Your task to perform on an android device: open chrome and create a bookmark for the current page Image 0: 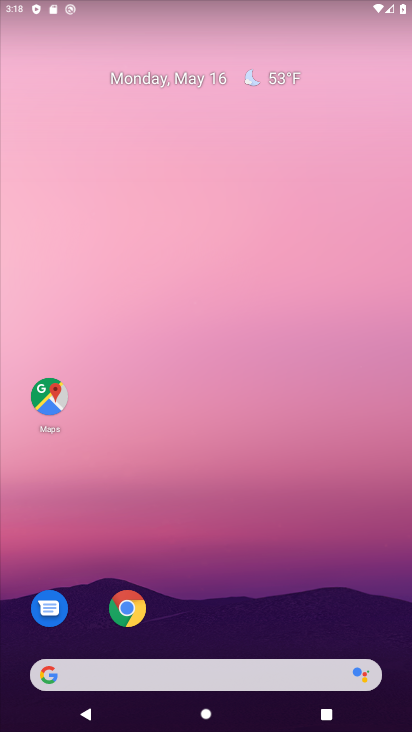
Step 0: click (129, 607)
Your task to perform on an android device: open chrome and create a bookmark for the current page Image 1: 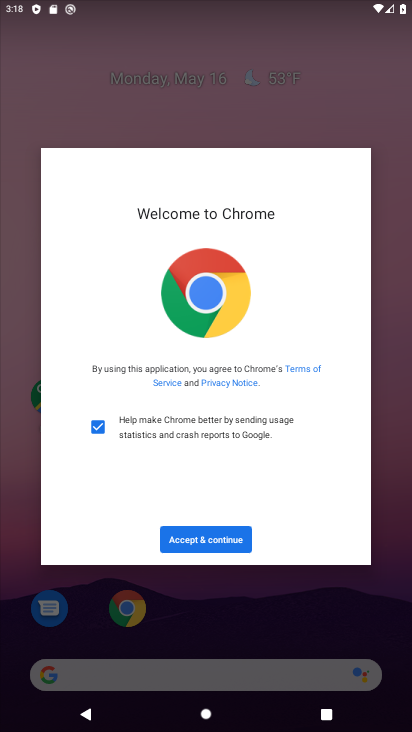
Step 1: click (198, 534)
Your task to perform on an android device: open chrome and create a bookmark for the current page Image 2: 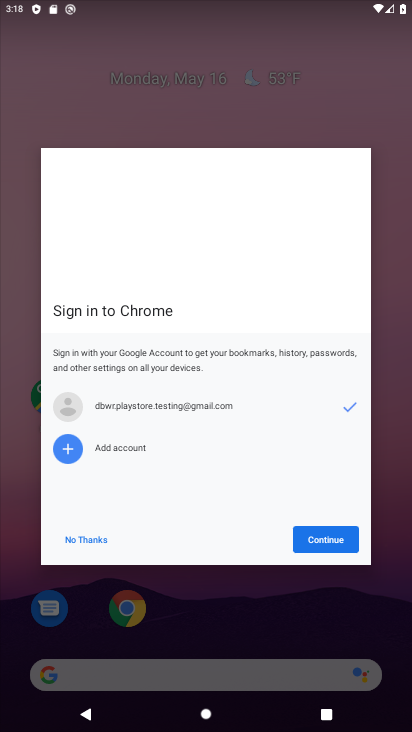
Step 2: click (322, 539)
Your task to perform on an android device: open chrome and create a bookmark for the current page Image 3: 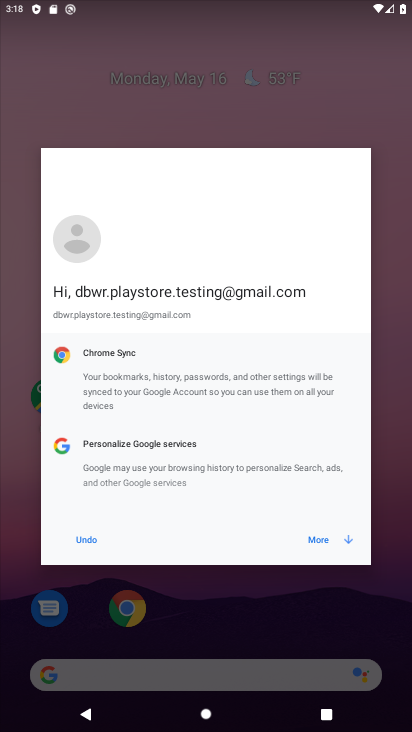
Step 3: click (322, 539)
Your task to perform on an android device: open chrome and create a bookmark for the current page Image 4: 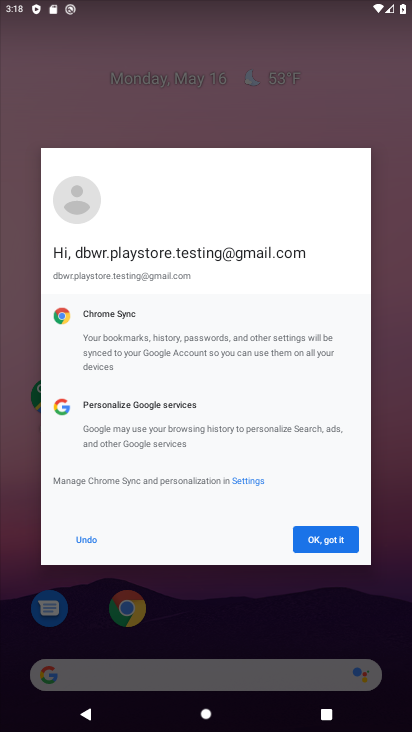
Step 4: click (322, 539)
Your task to perform on an android device: open chrome and create a bookmark for the current page Image 5: 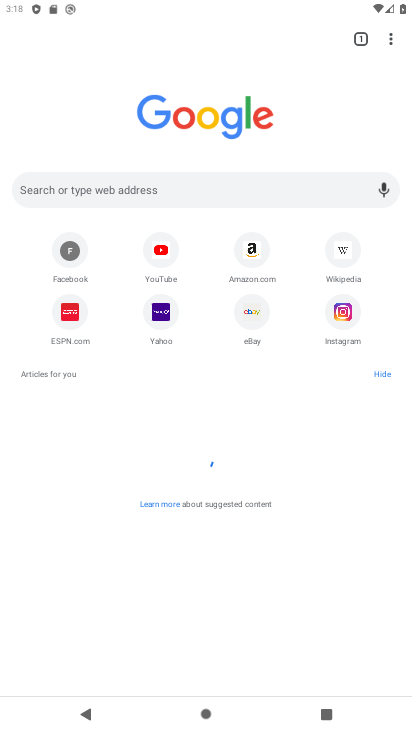
Step 5: click (390, 42)
Your task to perform on an android device: open chrome and create a bookmark for the current page Image 6: 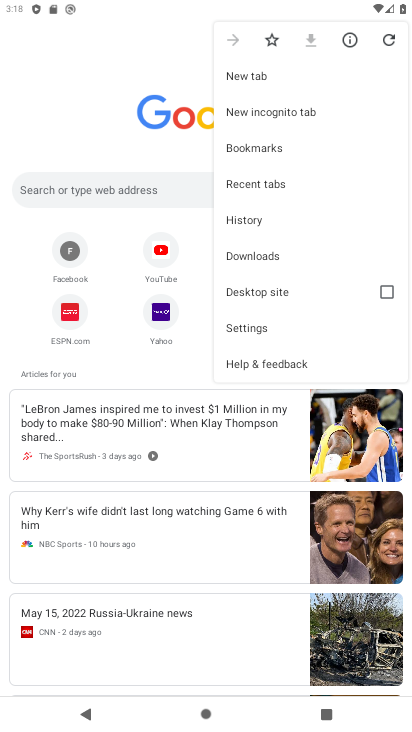
Step 6: click (270, 41)
Your task to perform on an android device: open chrome and create a bookmark for the current page Image 7: 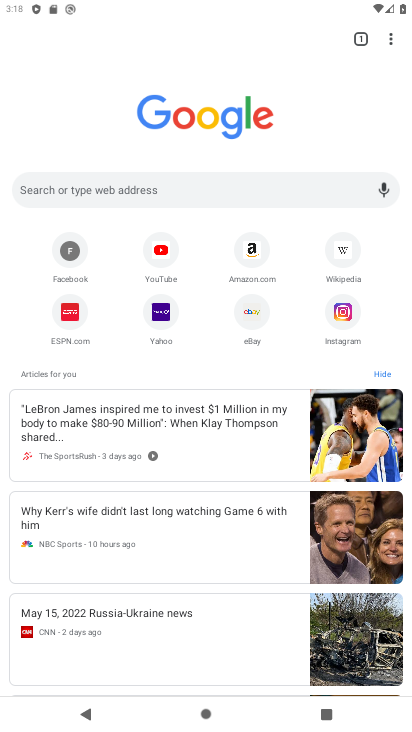
Step 7: task complete